Your task to perform on an android device: toggle airplane mode Image 0: 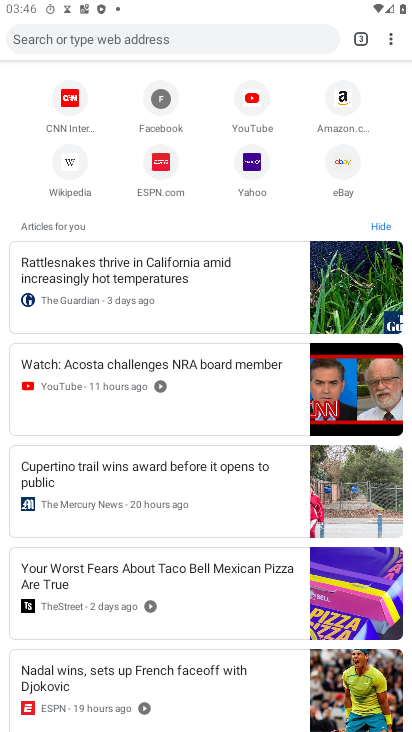
Step 0: press home button
Your task to perform on an android device: toggle airplane mode Image 1: 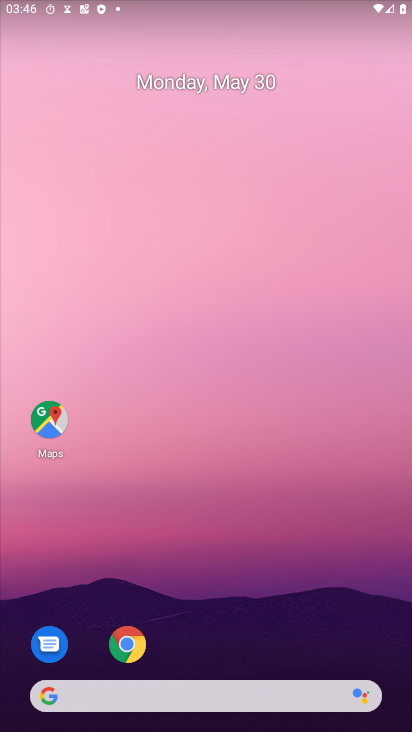
Step 1: drag from (212, 12) to (226, 358)
Your task to perform on an android device: toggle airplane mode Image 2: 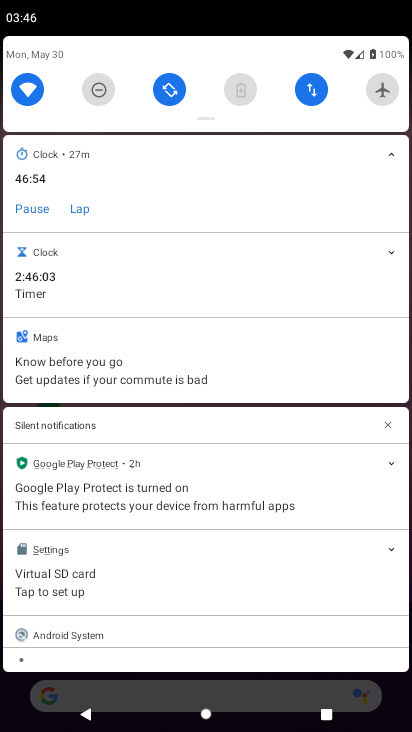
Step 2: click (389, 101)
Your task to perform on an android device: toggle airplane mode Image 3: 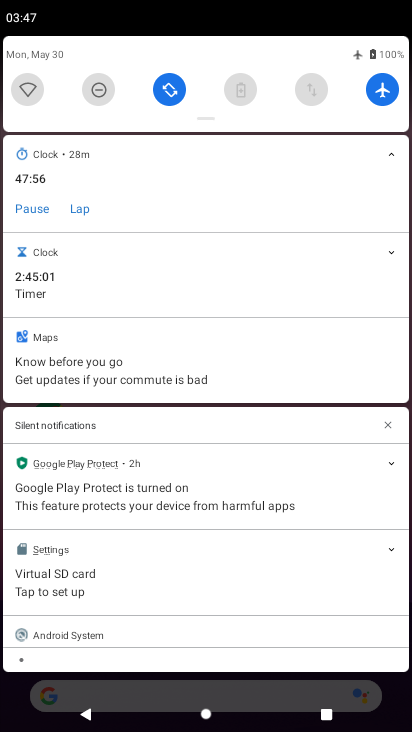
Step 3: task complete